Your task to perform on an android device: check the backup settings in the google photos Image 0: 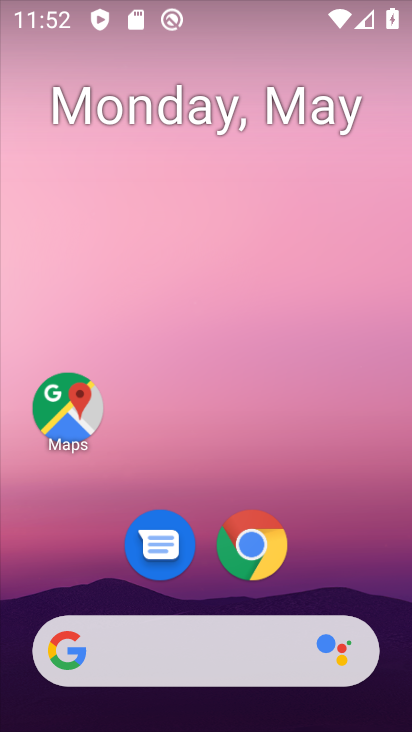
Step 0: drag from (322, 563) to (294, 253)
Your task to perform on an android device: check the backup settings in the google photos Image 1: 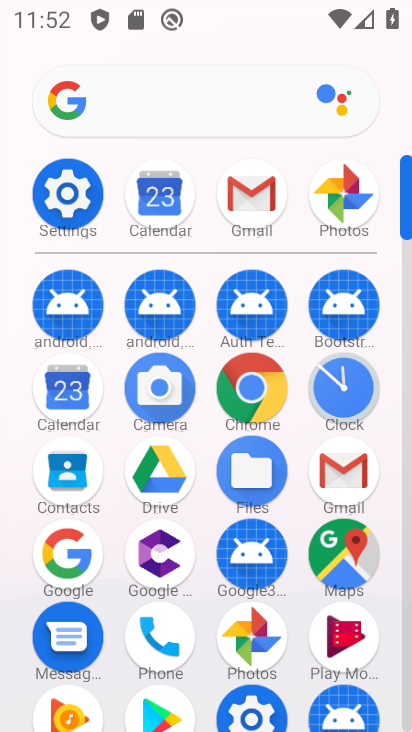
Step 1: click (335, 190)
Your task to perform on an android device: check the backup settings in the google photos Image 2: 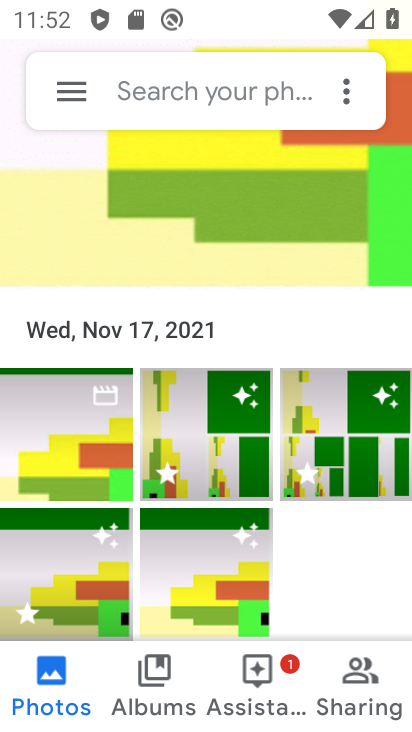
Step 2: click (77, 96)
Your task to perform on an android device: check the backup settings in the google photos Image 3: 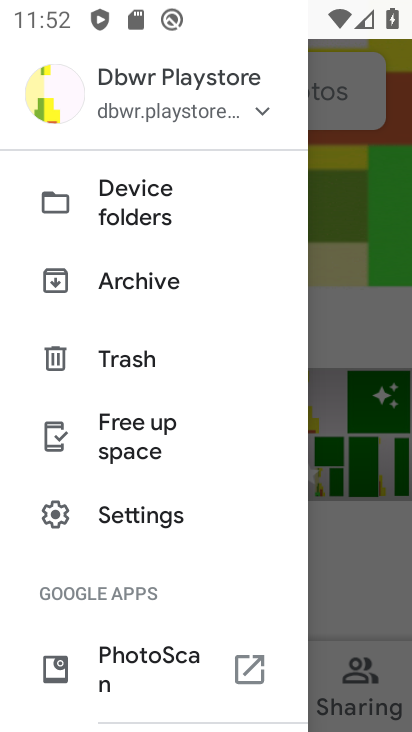
Step 3: click (160, 500)
Your task to perform on an android device: check the backup settings in the google photos Image 4: 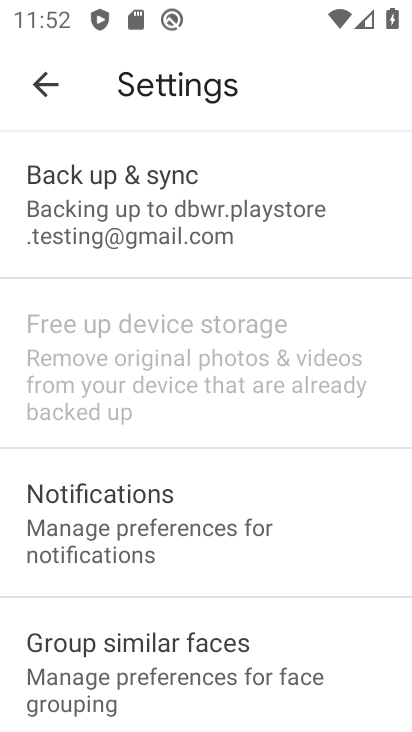
Step 4: drag from (155, 576) to (142, 267)
Your task to perform on an android device: check the backup settings in the google photos Image 5: 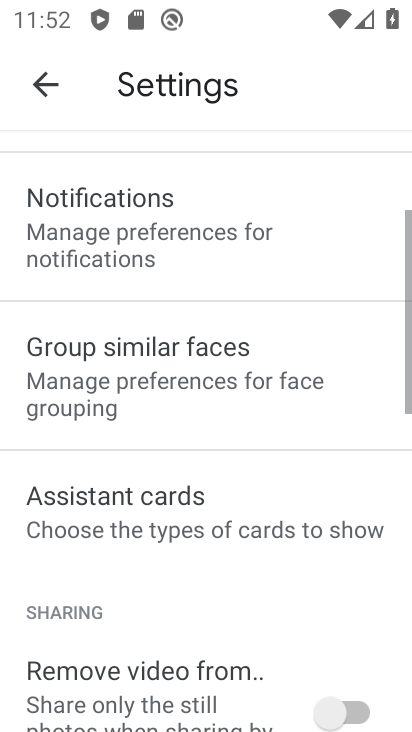
Step 5: drag from (144, 228) to (163, 672)
Your task to perform on an android device: check the backup settings in the google photos Image 6: 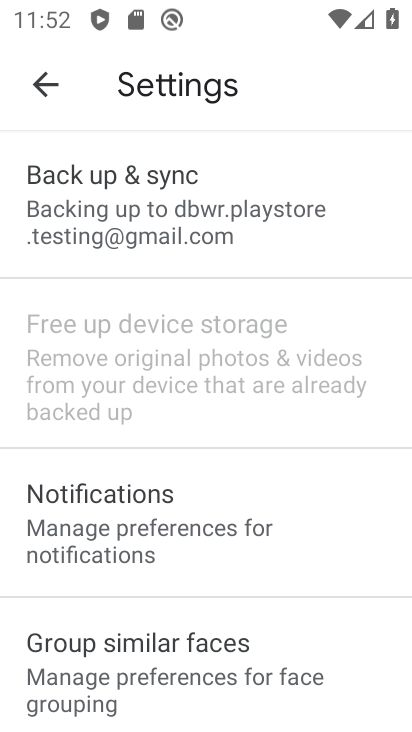
Step 6: click (130, 229)
Your task to perform on an android device: check the backup settings in the google photos Image 7: 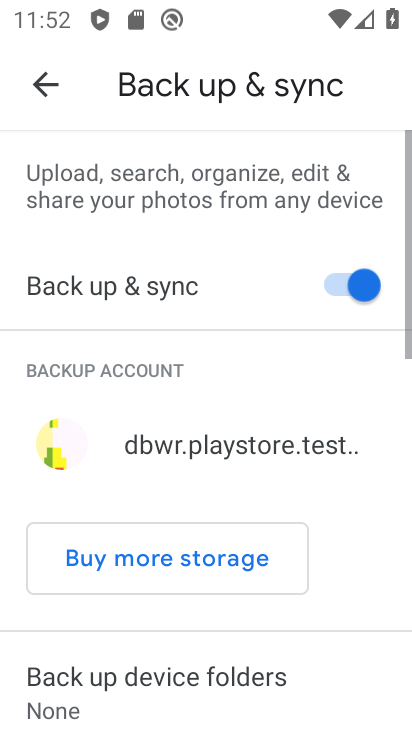
Step 7: task complete